Your task to perform on an android device: turn on sleep mode Image 0: 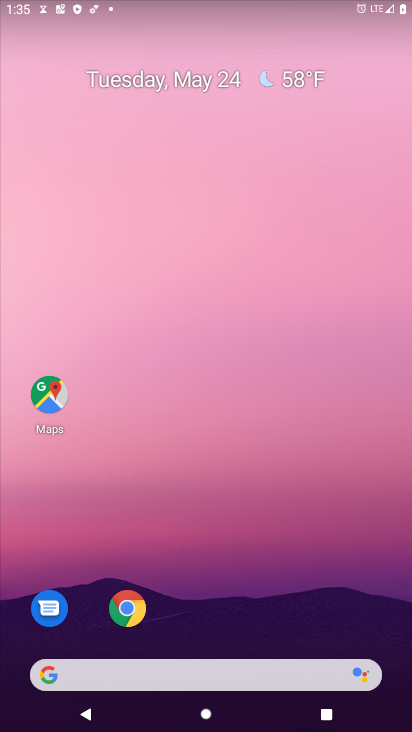
Step 0: drag from (274, 688) to (165, 265)
Your task to perform on an android device: turn on sleep mode Image 1: 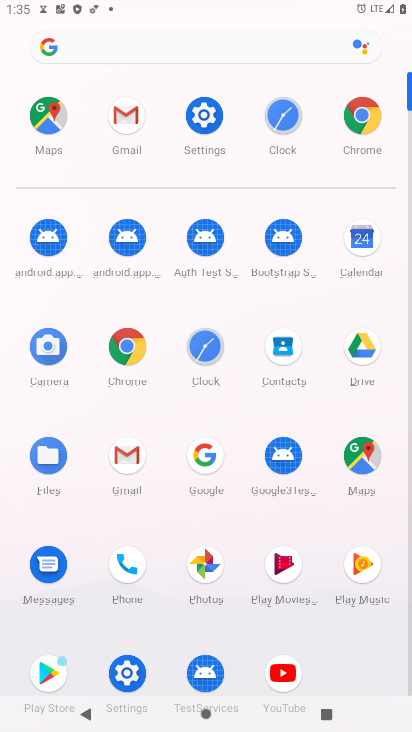
Step 1: click (205, 129)
Your task to perform on an android device: turn on sleep mode Image 2: 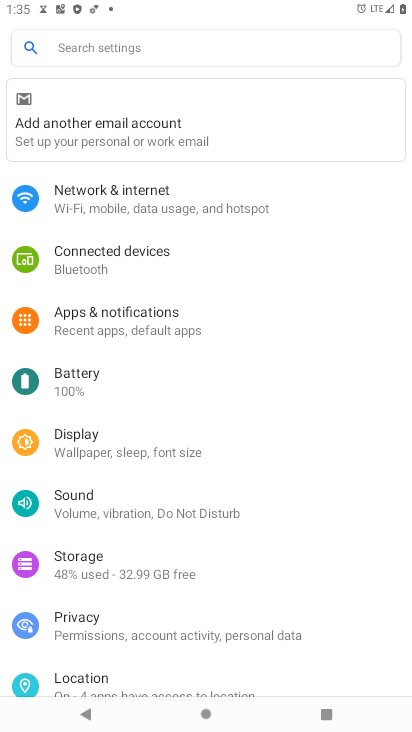
Step 2: click (146, 50)
Your task to perform on an android device: turn on sleep mode Image 3: 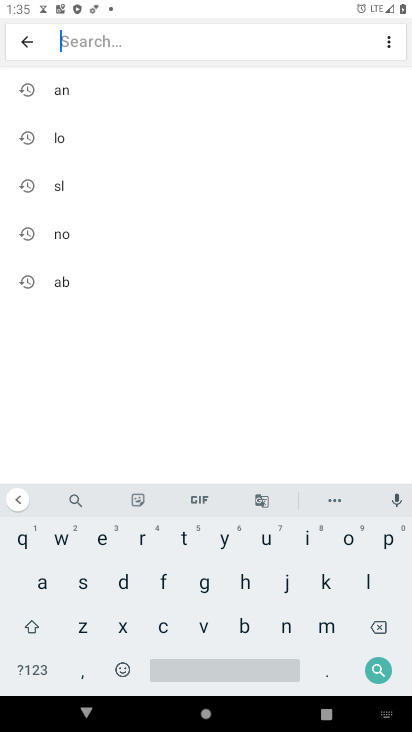
Step 3: click (81, 585)
Your task to perform on an android device: turn on sleep mode Image 4: 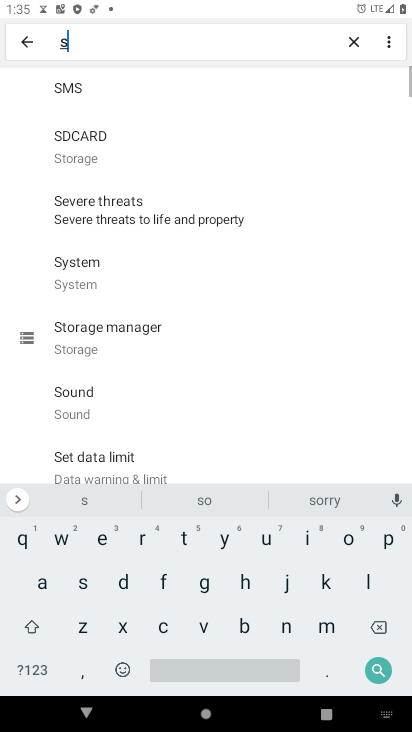
Step 4: click (364, 578)
Your task to perform on an android device: turn on sleep mode Image 5: 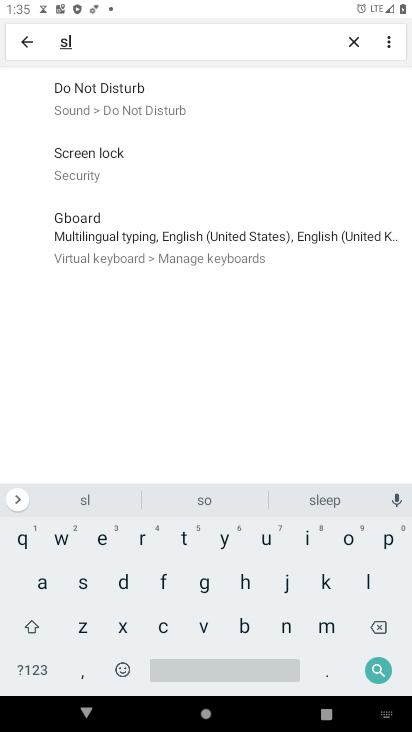
Step 5: click (135, 106)
Your task to perform on an android device: turn on sleep mode Image 6: 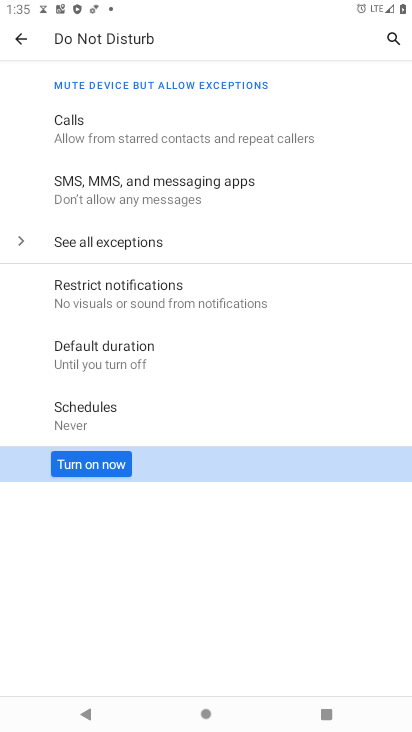
Step 6: task complete